Your task to perform on an android device: check android version Image 0: 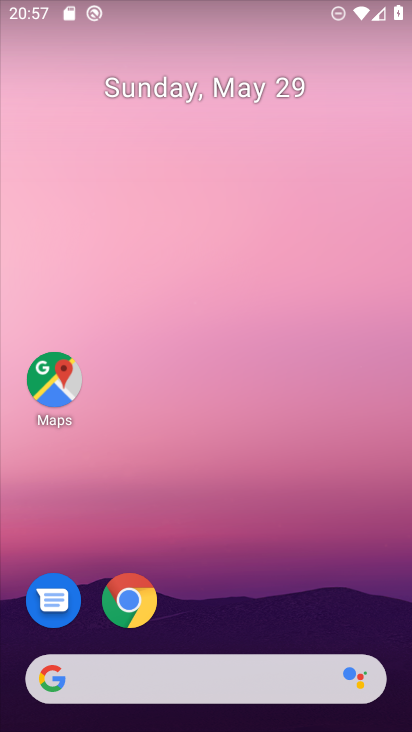
Step 0: drag from (329, 585) to (307, 206)
Your task to perform on an android device: check android version Image 1: 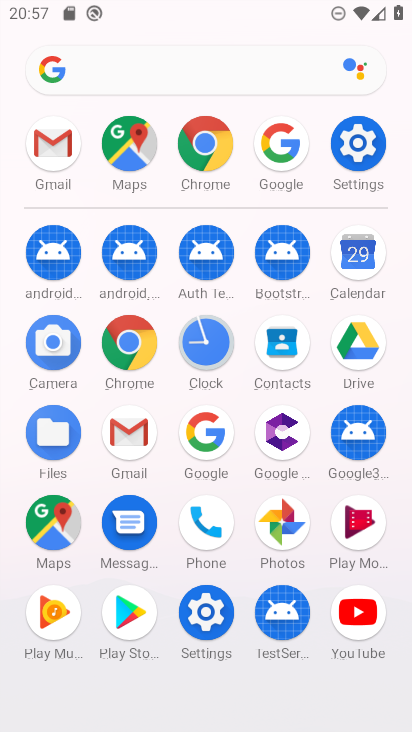
Step 1: click (205, 634)
Your task to perform on an android device: check android version Image 2: 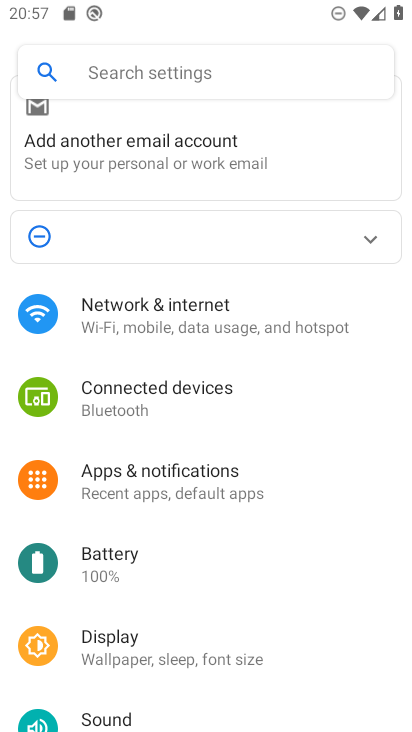
Step 2: drag from (211, 606) to (223, 317)
Your task to perform on an android device: check android version Image 3: 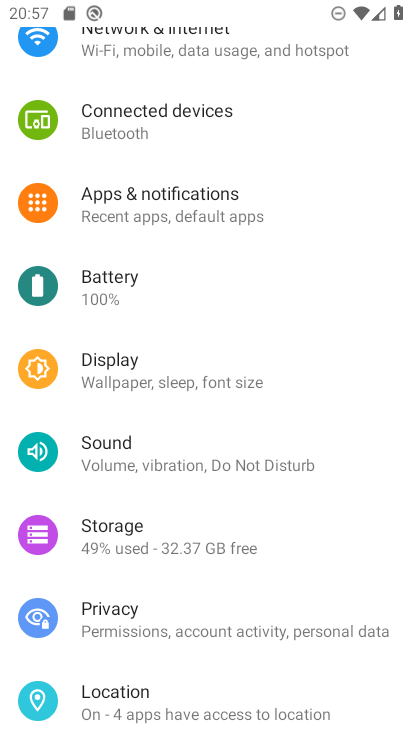
Step 3: drag from (330, 708) to (324, 319)
Your task to perform on an android device: check android version Image 4: 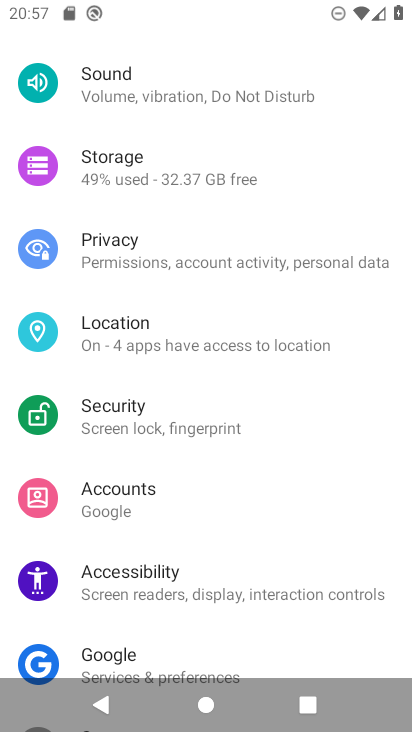
Step 4: drag from (275, 637) to (330, 178)
Your task to perform on an android device: check android version Image 5: 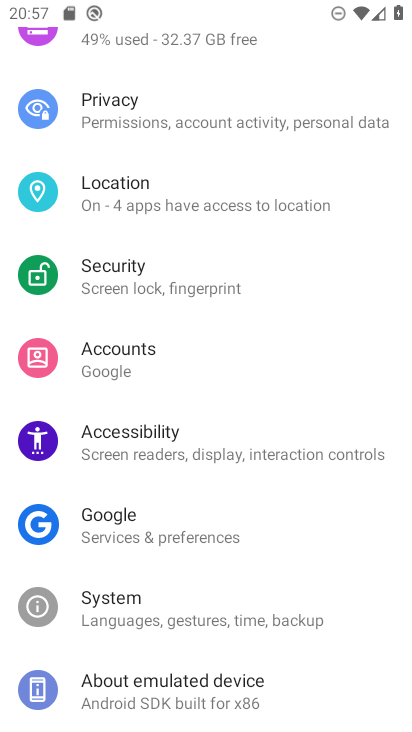
Step 5: drag from (276, 520) to (313, 176)
Your task to perform on an android device: check android version Image 6: 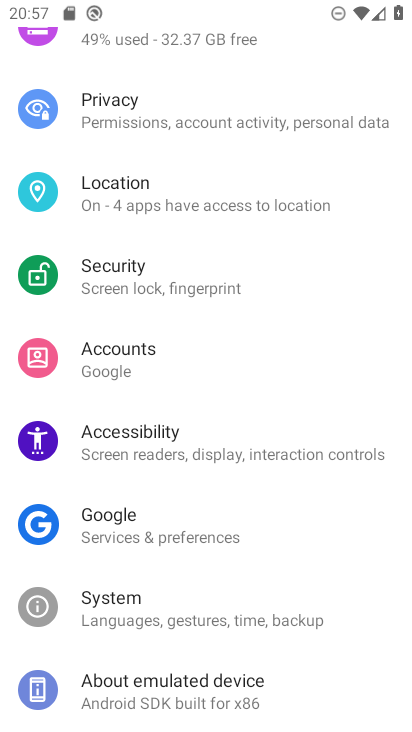
Step 6: drag from (281, 562) to (291, 253)
Your task to perform on an android device: check android version Image 7: 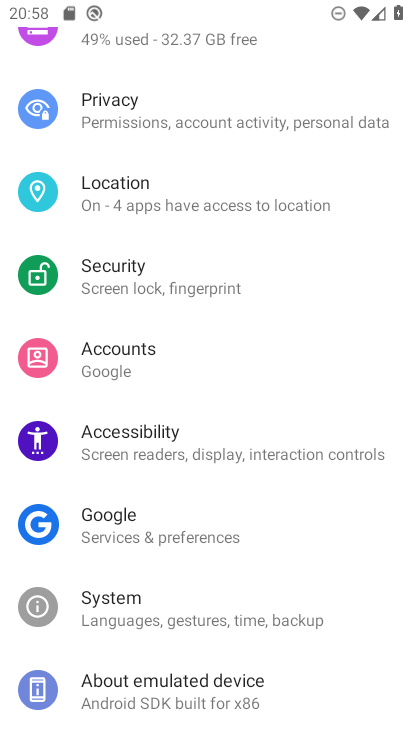
Step 7: click (210, 680)
Your task to perform on an android device: check android version Image 8: 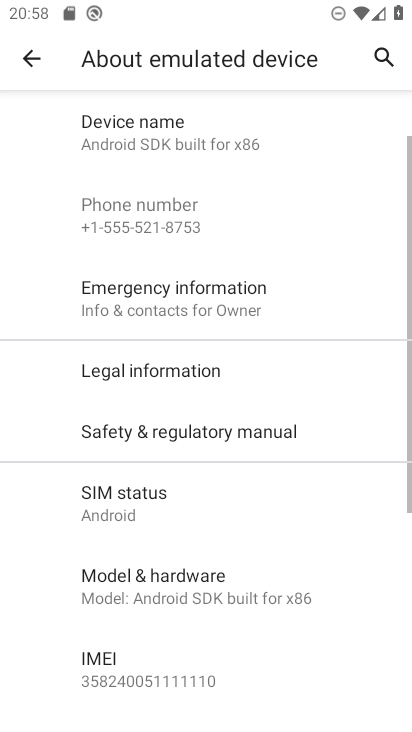
Step 8: drag from (261, 680) to (336, 193)
Your task to perform on an android device: check android version Image 9: 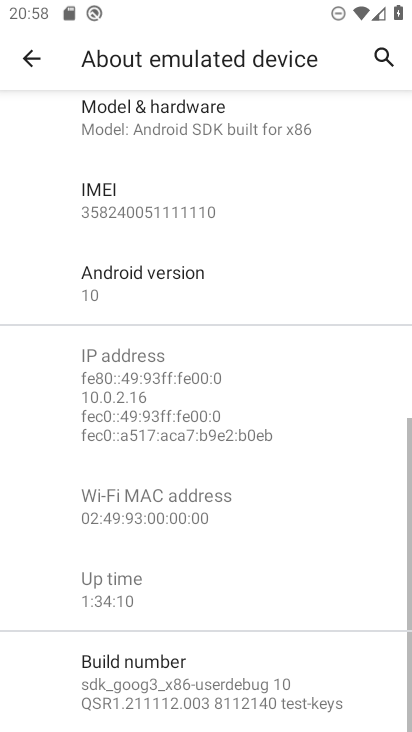
Step 9: click (283, 272)
Your task to perform on an android device: check android version Image 10: 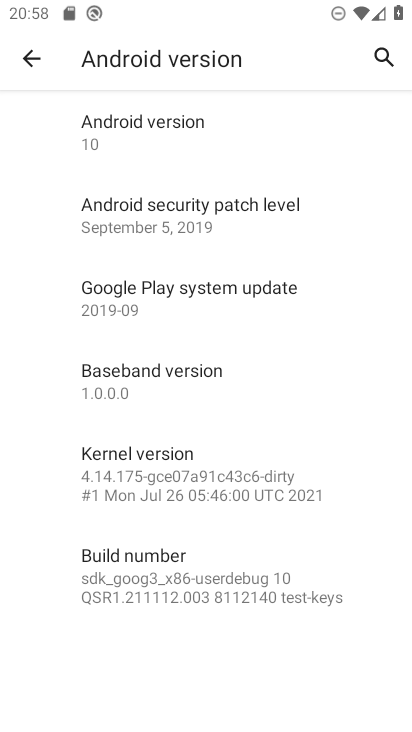
Step 10: task complete